Your task to perform on an android device: Open network settings Image 0: 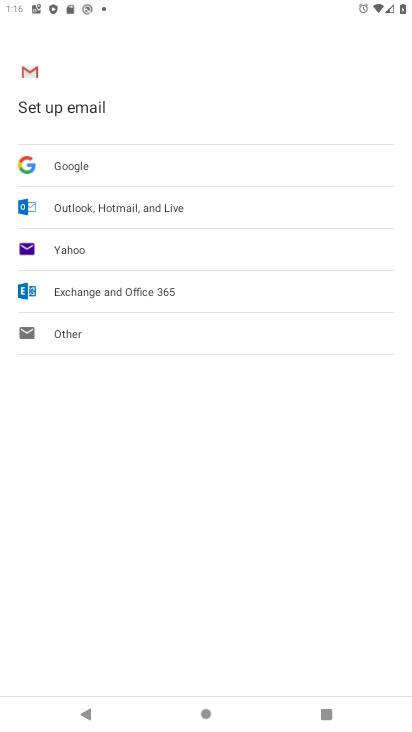
Step 0: press home button
Your task to perform on an android device: Open network settings Image 1: 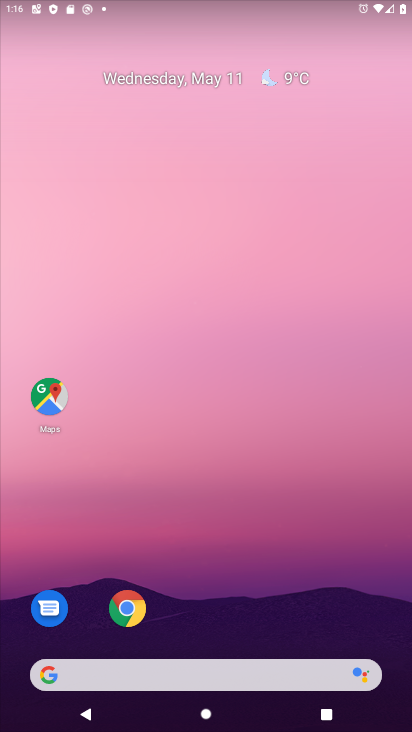
Step 1: drag from (322, 622) to (237, 198)
Your task to perform on an android device: Open network settings Image 2: 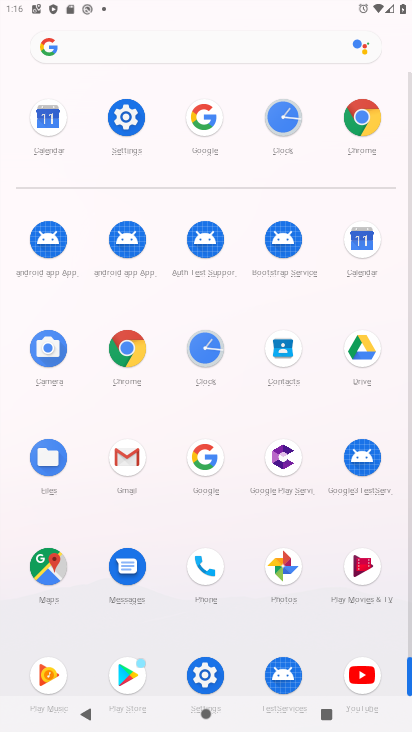
Step 2: click (140, 115)
Your task to perform on an android device: Open network settings Image 3: 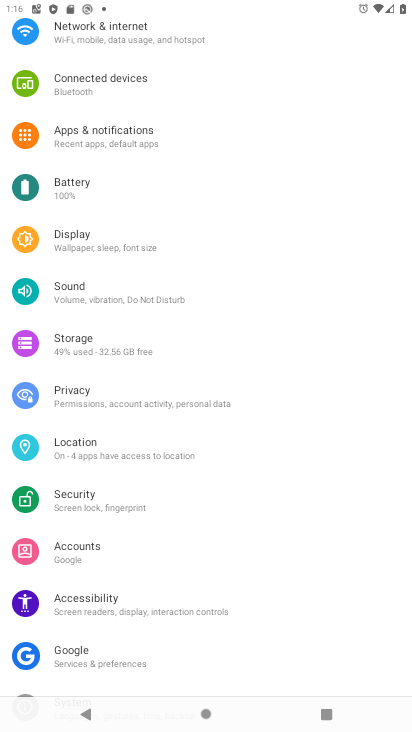
Step 3: drag from (140, 115) to (113, 320)
Your task to perform on an android device: Open network settings Image 4: 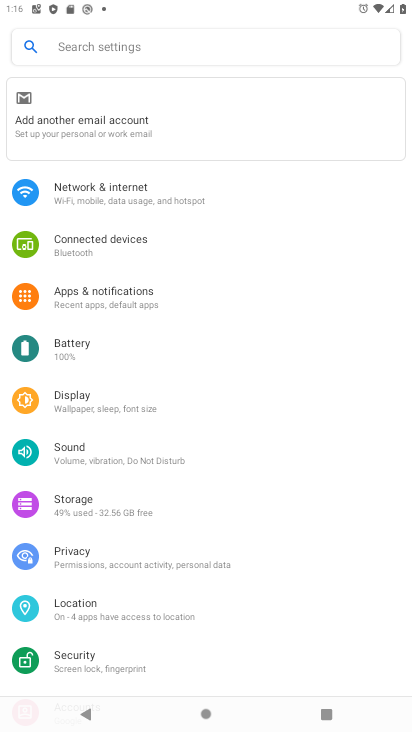
Step 4: click (147, 190)
Your task to perform on an android device: Open network settings Image 5: 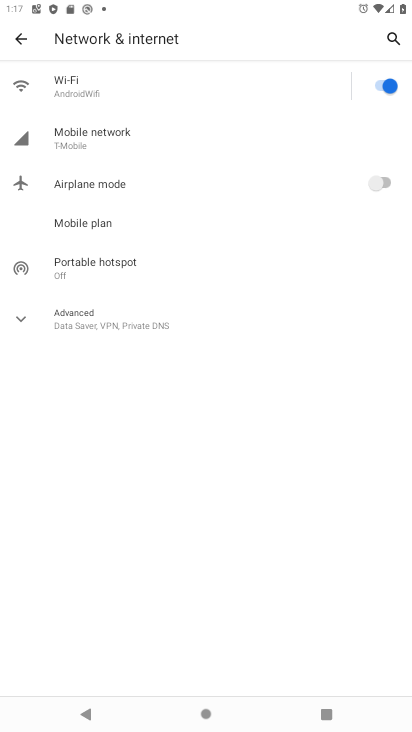
Step 5: click (174, 135)
Your task to perform on an android device: Open network settings Image 6: 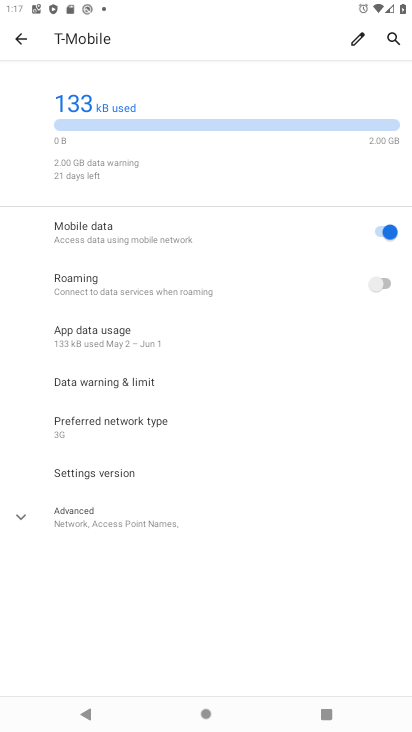
Step 6: task complete